Your task to perform on an android device: turn on showing notifications on the lock screen Image 0: 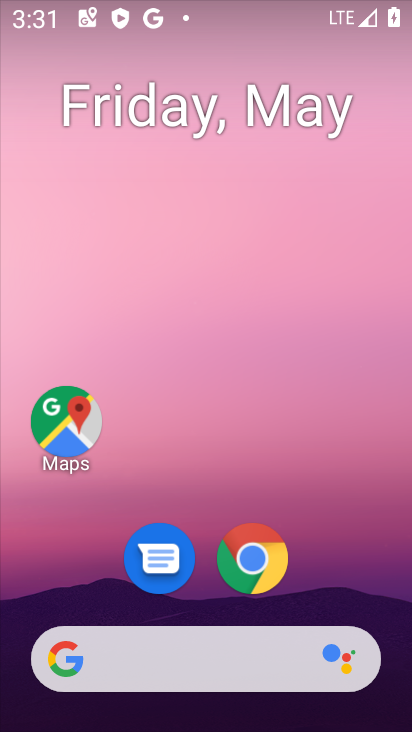
Step 0: press home button
Your task to perform on an android device: turn on showing notifications on the lock screen Image 1: 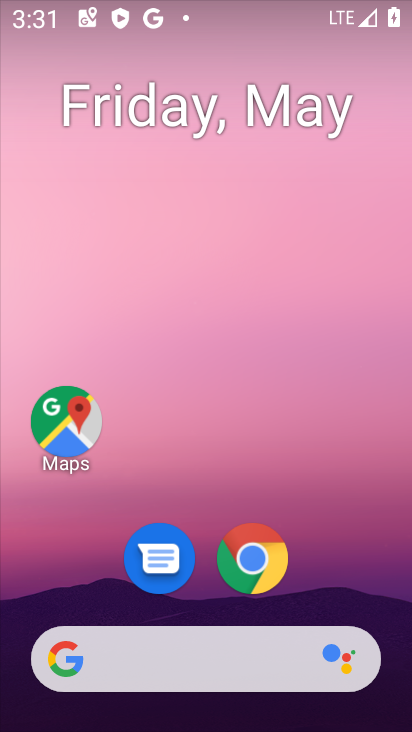
Step 1: drag from (169, 668) to (285, 214)
Your task to perform on an android device: turn on showing notifications on the lock screen Image 2: 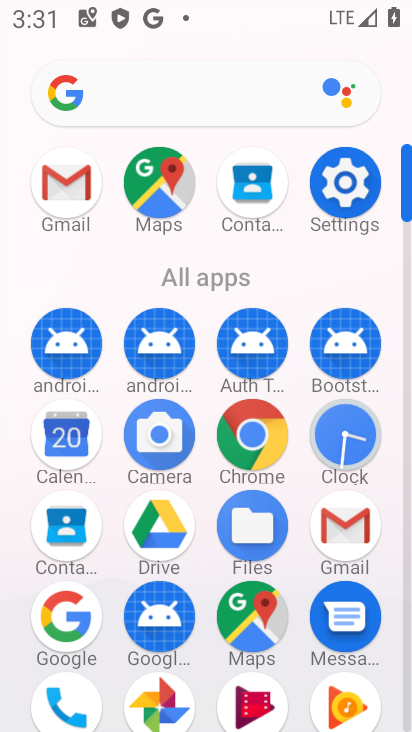
Step 2: click (346, 189)
Your task to perform on an android device: turn on showing notifications on the lock screen Image 3: 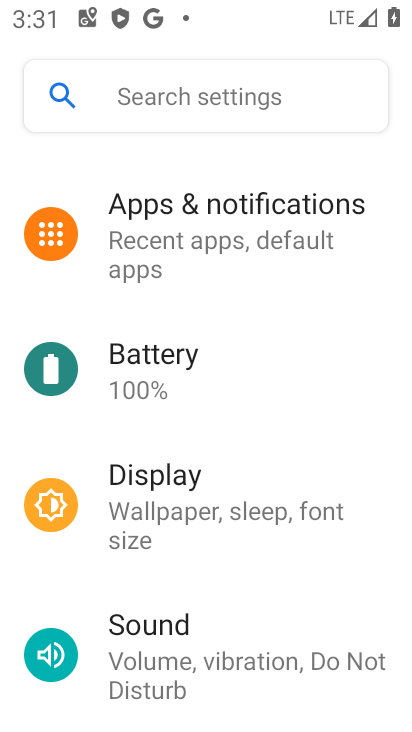
Step 3: click (251, 215)
Your task to perform on an android device: turn on showing notifications on the lock screen Image 4: 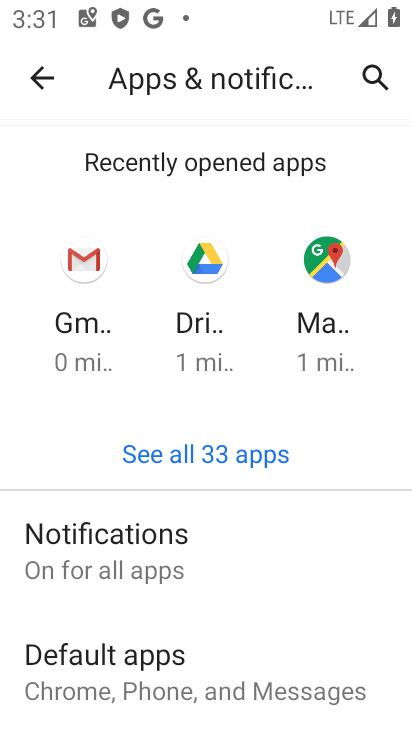
Step 4: click (153, 531)
Your task to perform on an android device: turn on showing notifications on the lock screen Image 5: 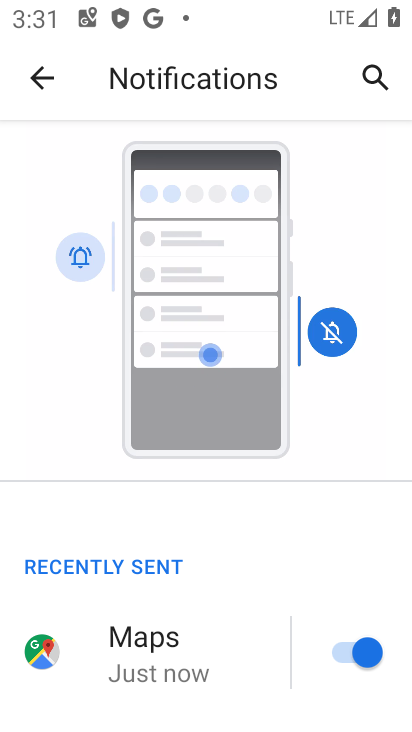
Step 5: drag from (205, 622) to (323, 213)
Your task to perform on an android device: turn on showing notifications on the lock screen Image 6: 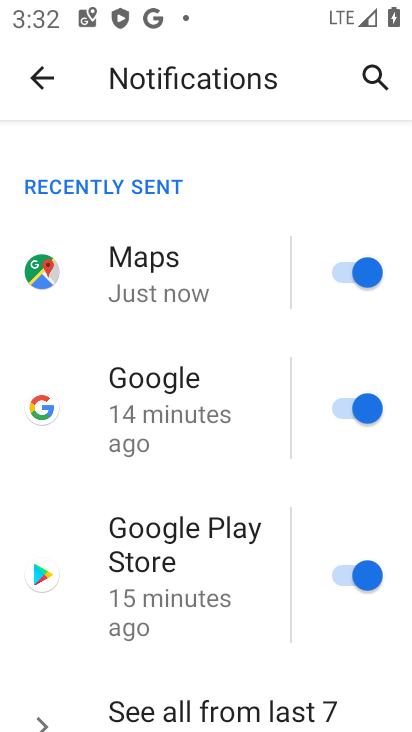
Step 6: drag from (221, 649) to (325, 268)
Your task to perform on an android device: turn on showing notifications on the lock screen Image 7: 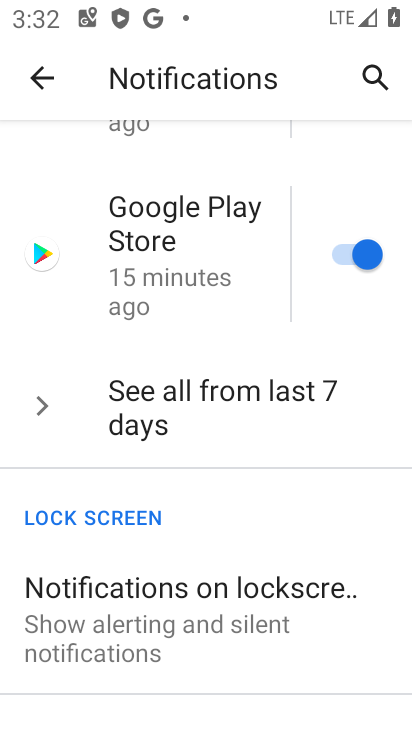
Step 7: click (240, 600)
Your task to perform on an android device: turn on showing notifications on the lock screen Image 8: 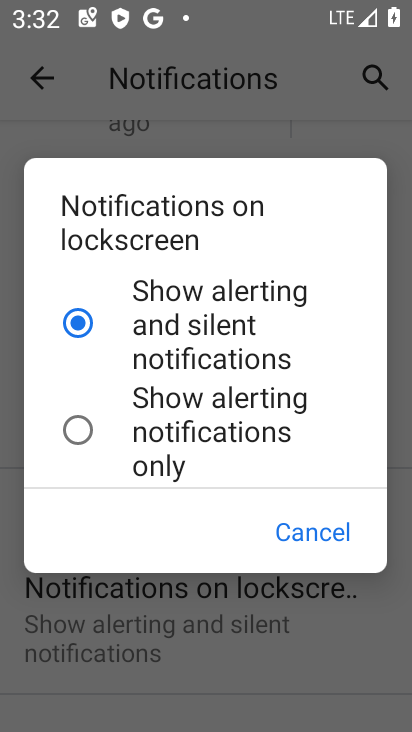
Step 8: task complete